Your task to perform on an android device: turn off location Image 0: 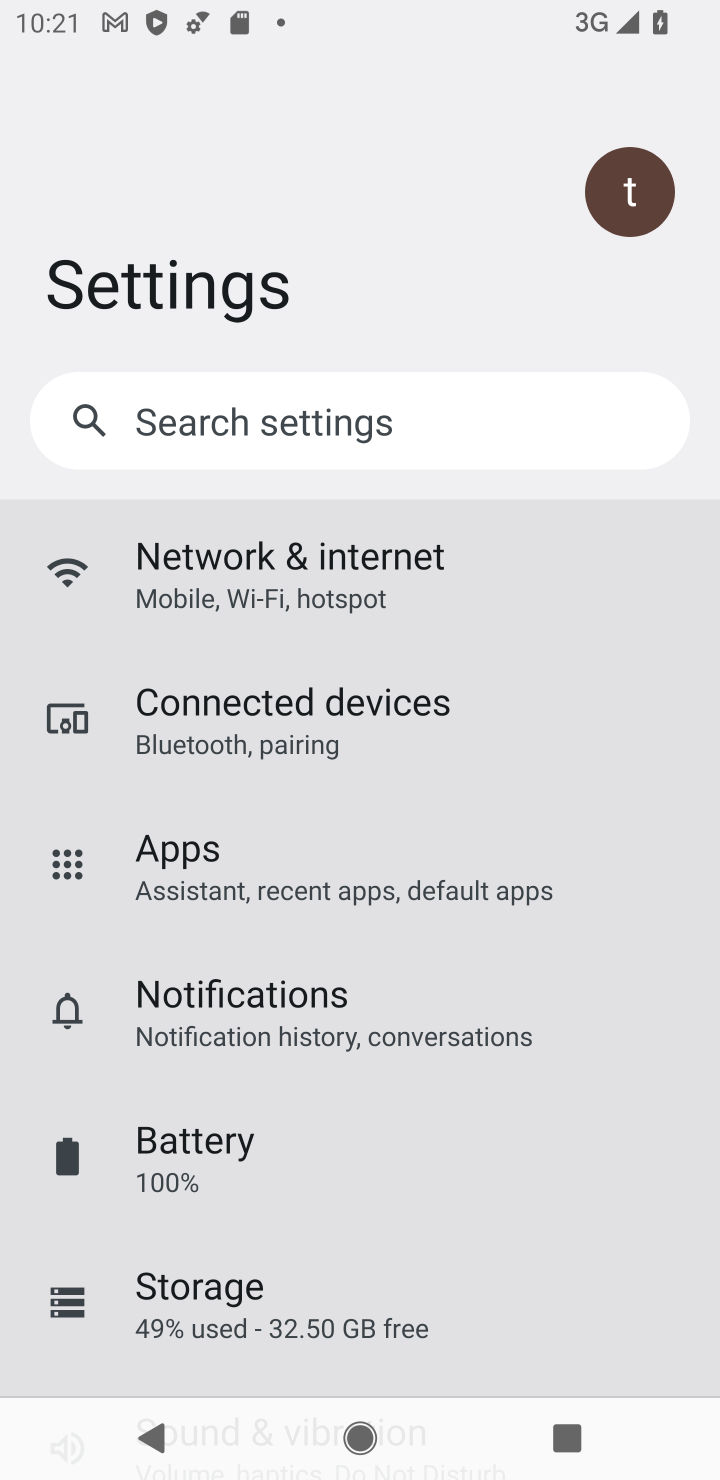
Step 0: drag from (303, 1148) to (307, 563)
Your task to perform on an android device: turn off location Image 1: 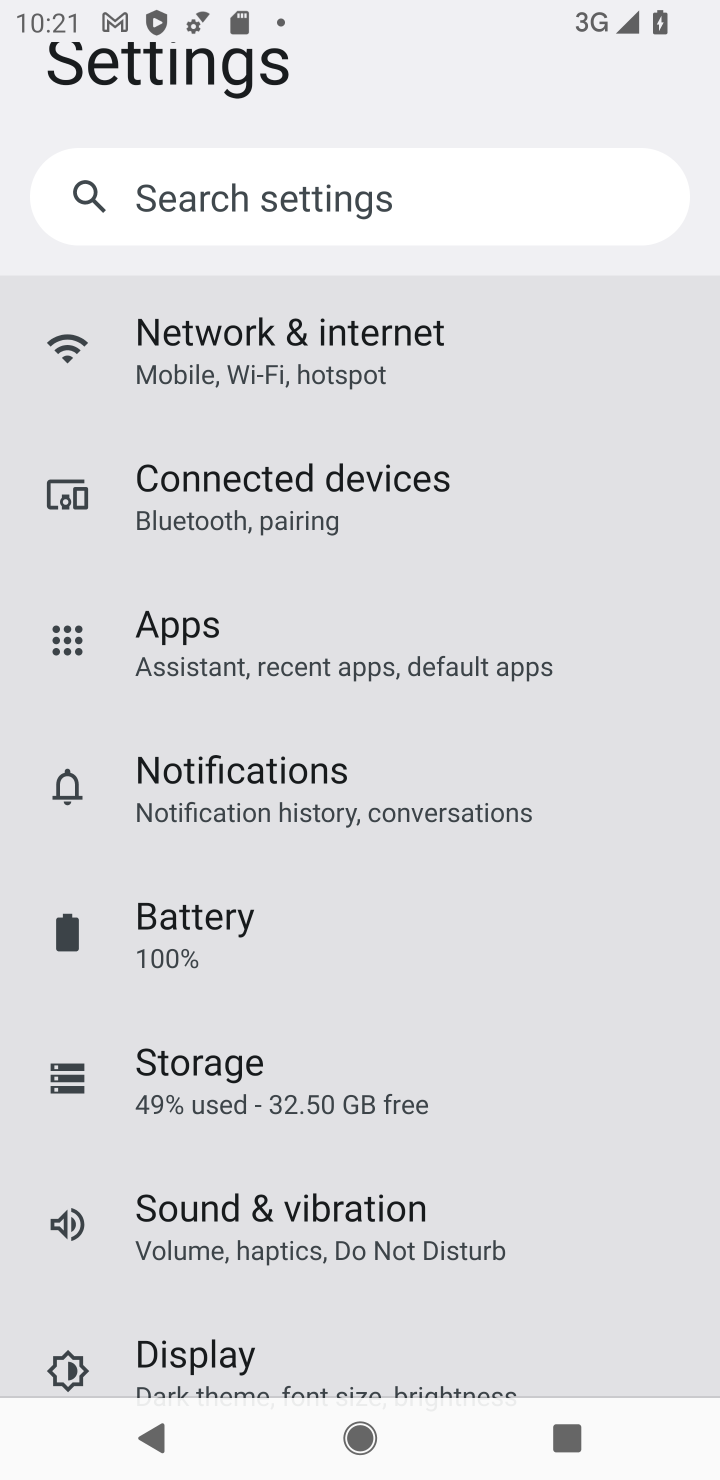
Step 1: drag from (230, 1044) to (227, 802)
Your task to perform on an android device: turn off location Image 2: 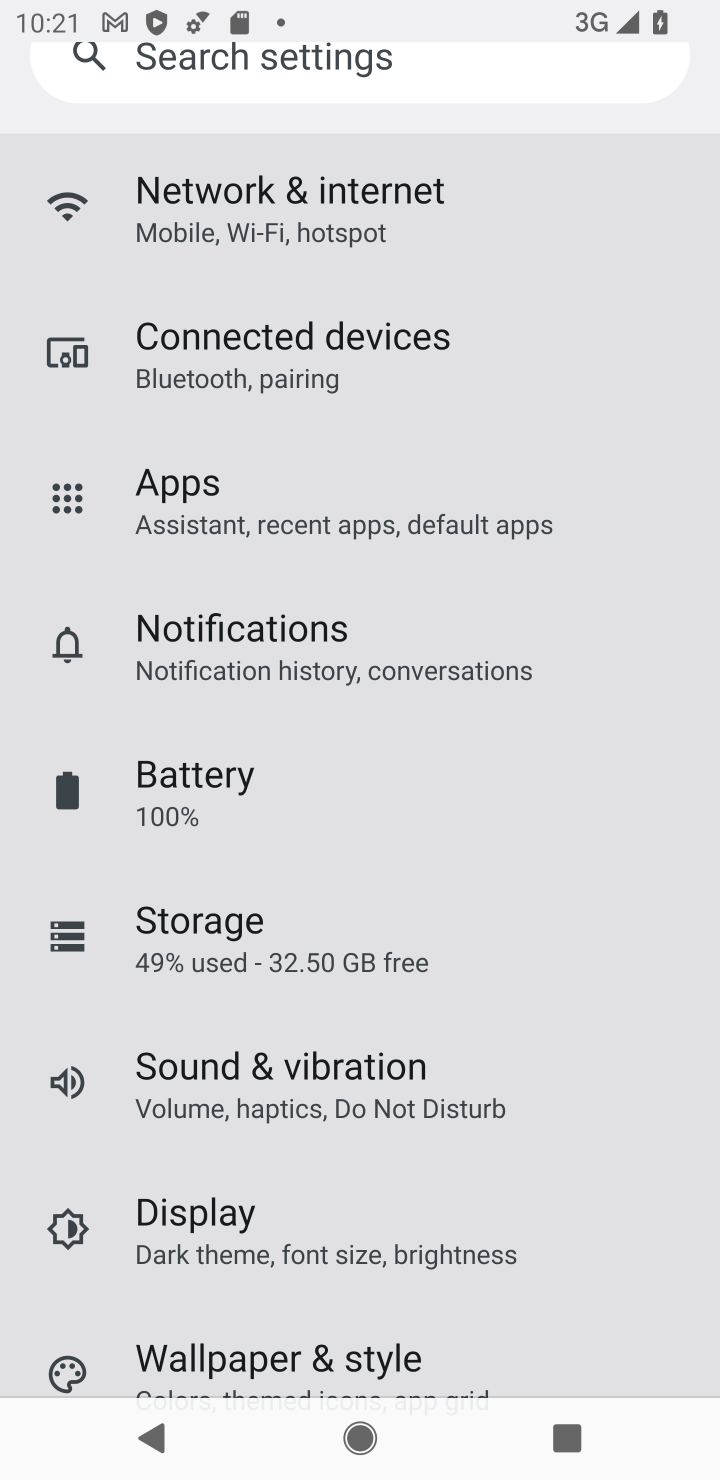
Step 2: drag from (238, 1164) to (276, 799)
Your task to perform on an android device: turn off location Image 3: 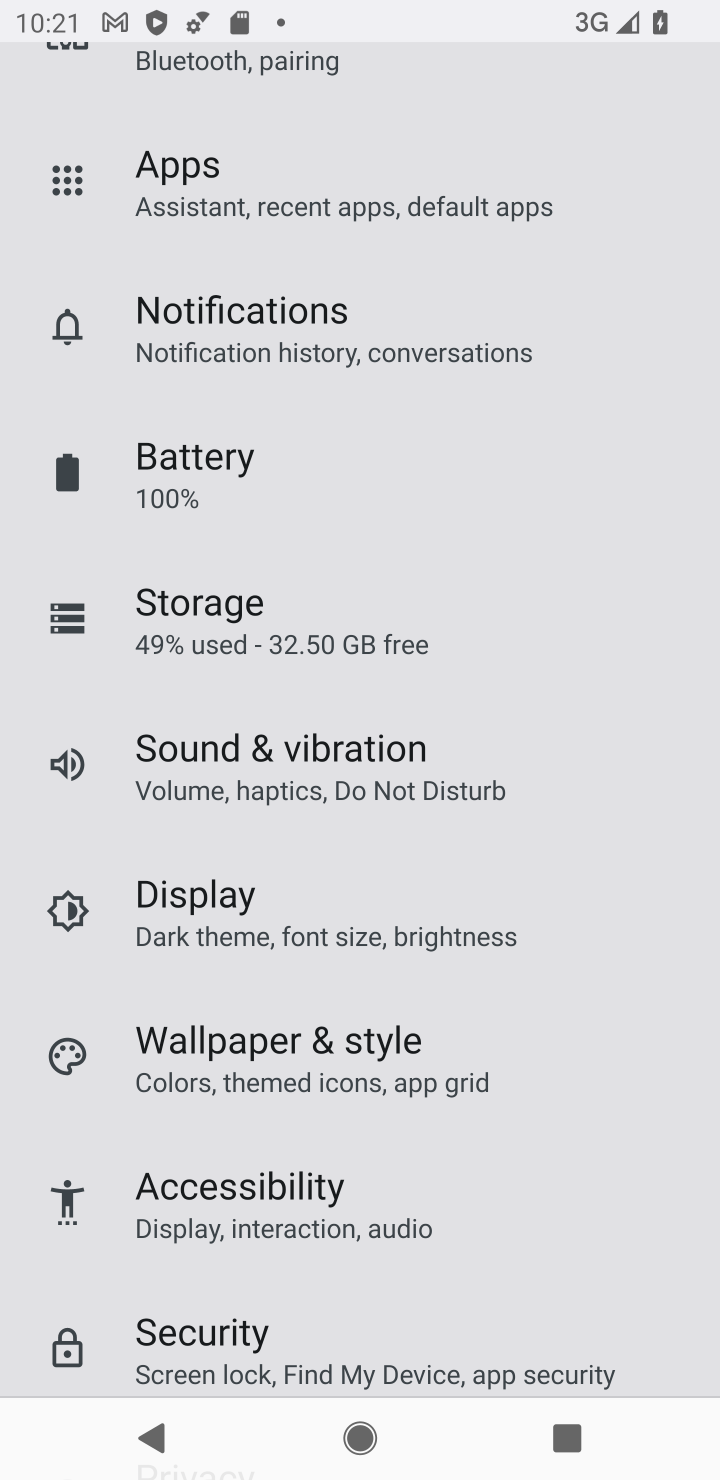
Step 3: drag from (255, 994) to (299, 506)
Your task to perform on an android device: turn off location Image 4: 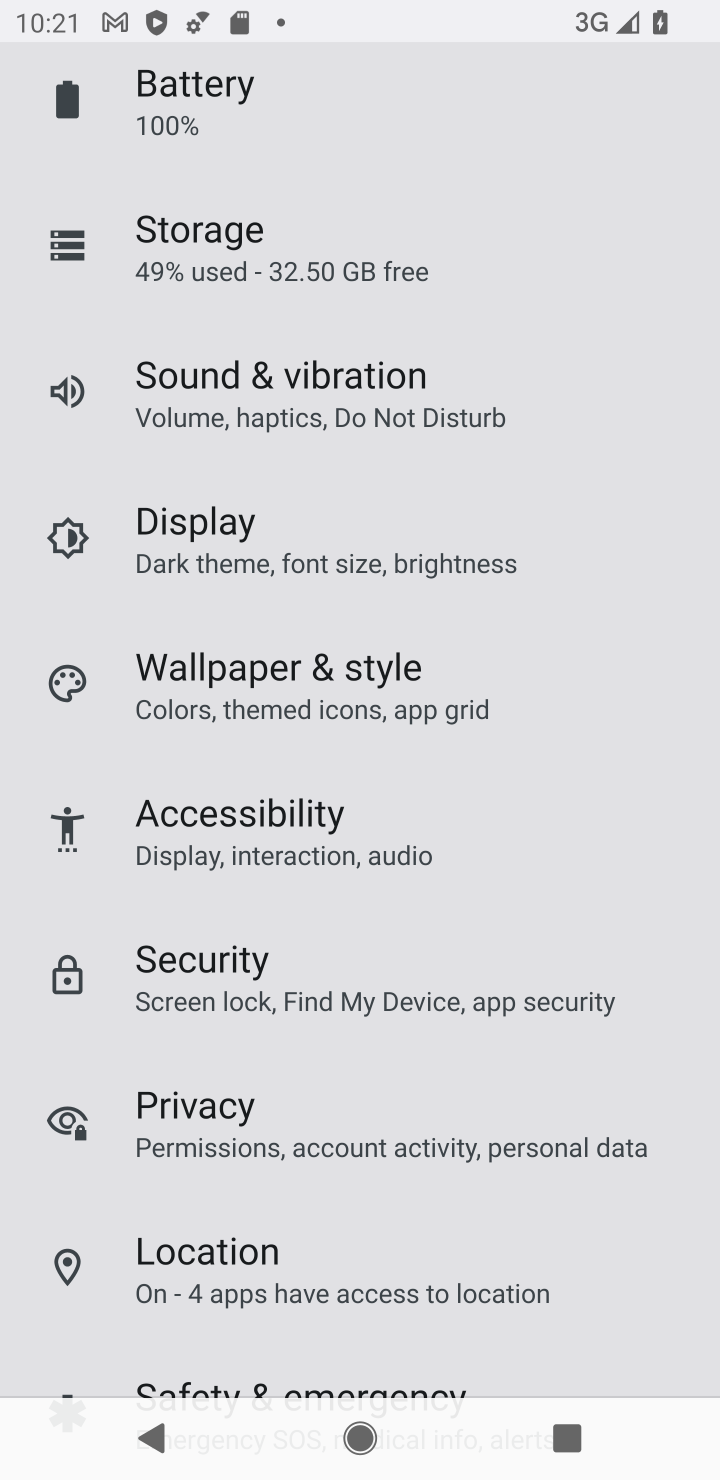
Step 4: drag from (326, 1224) to (319, 584)
Your task to perform on an android device: turn off location Image 5: 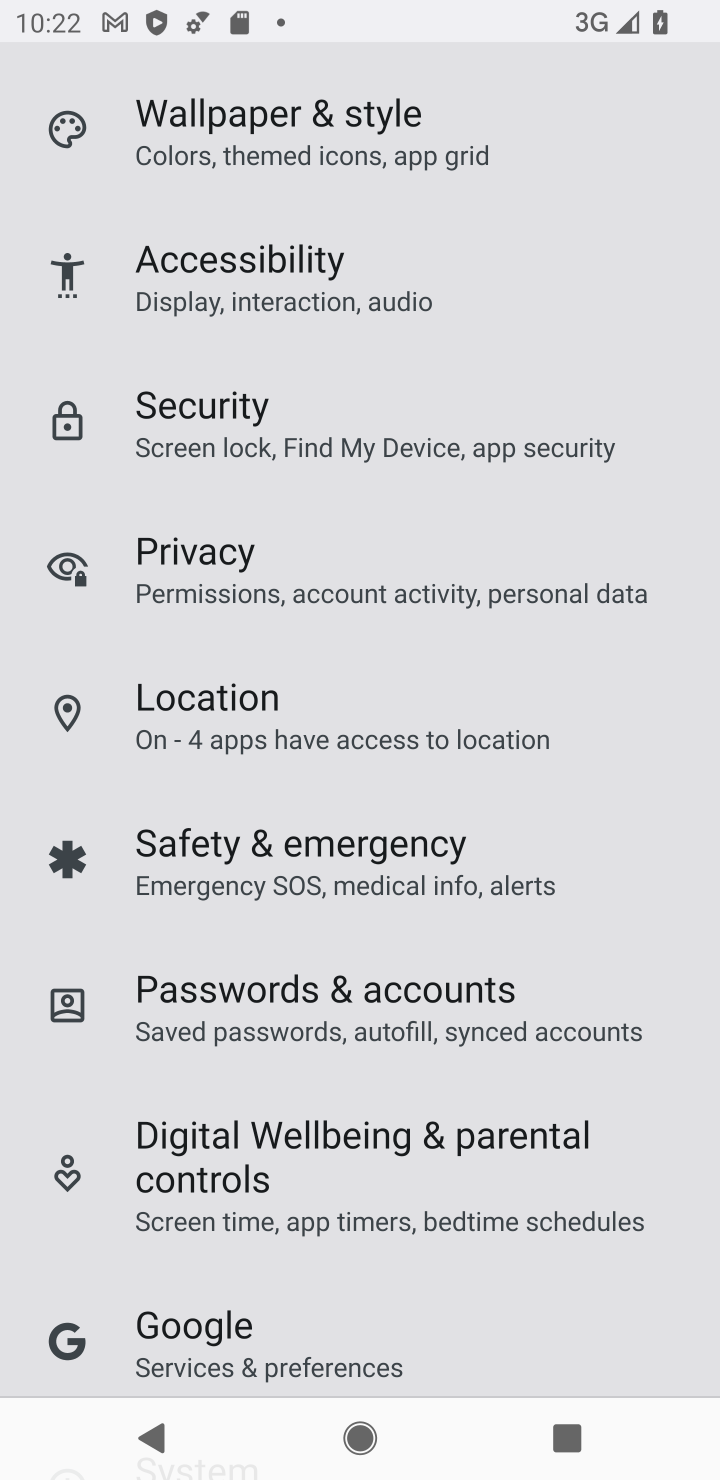
Step 5: click (177, 710)
Your task to perform on an android device: turn off location Image 6: 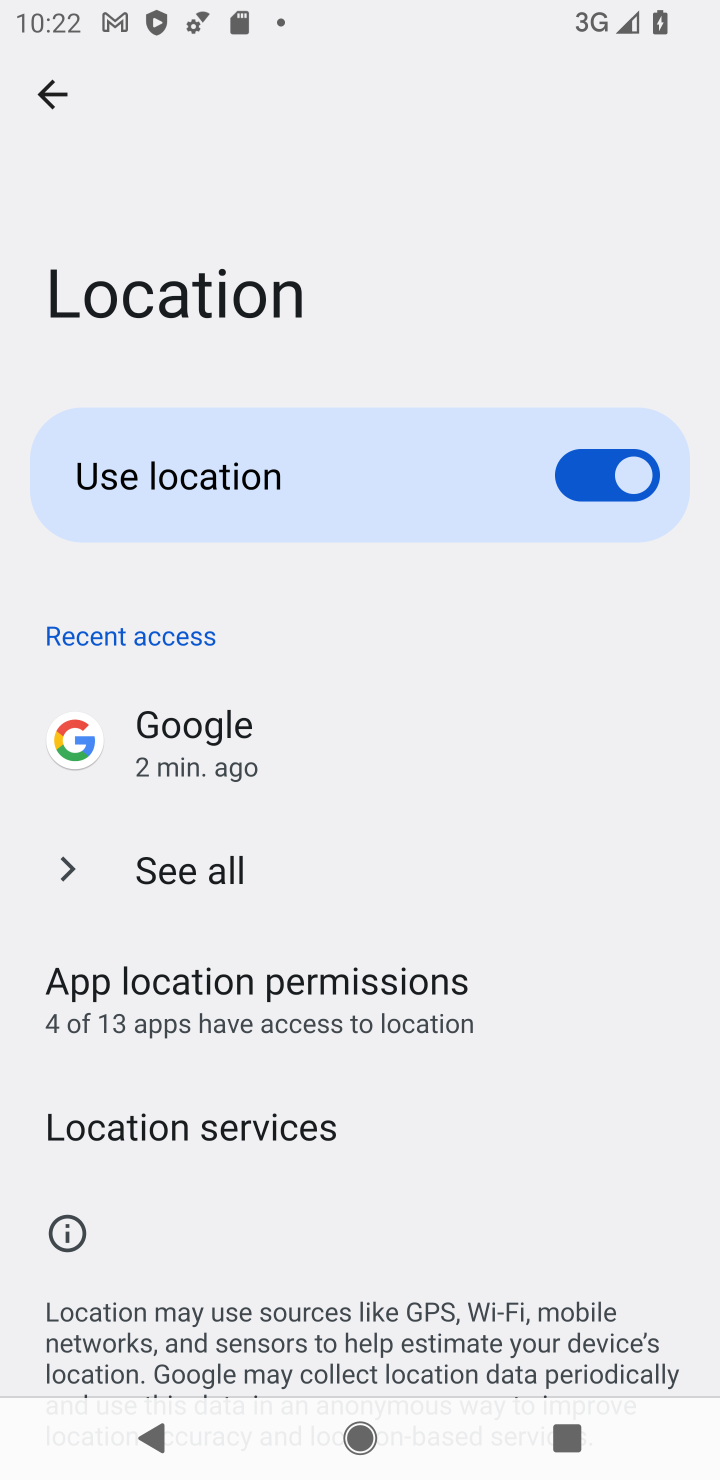
Step 6: click (324, 467)
Your task to perform on an android device: turn off location Image 7: 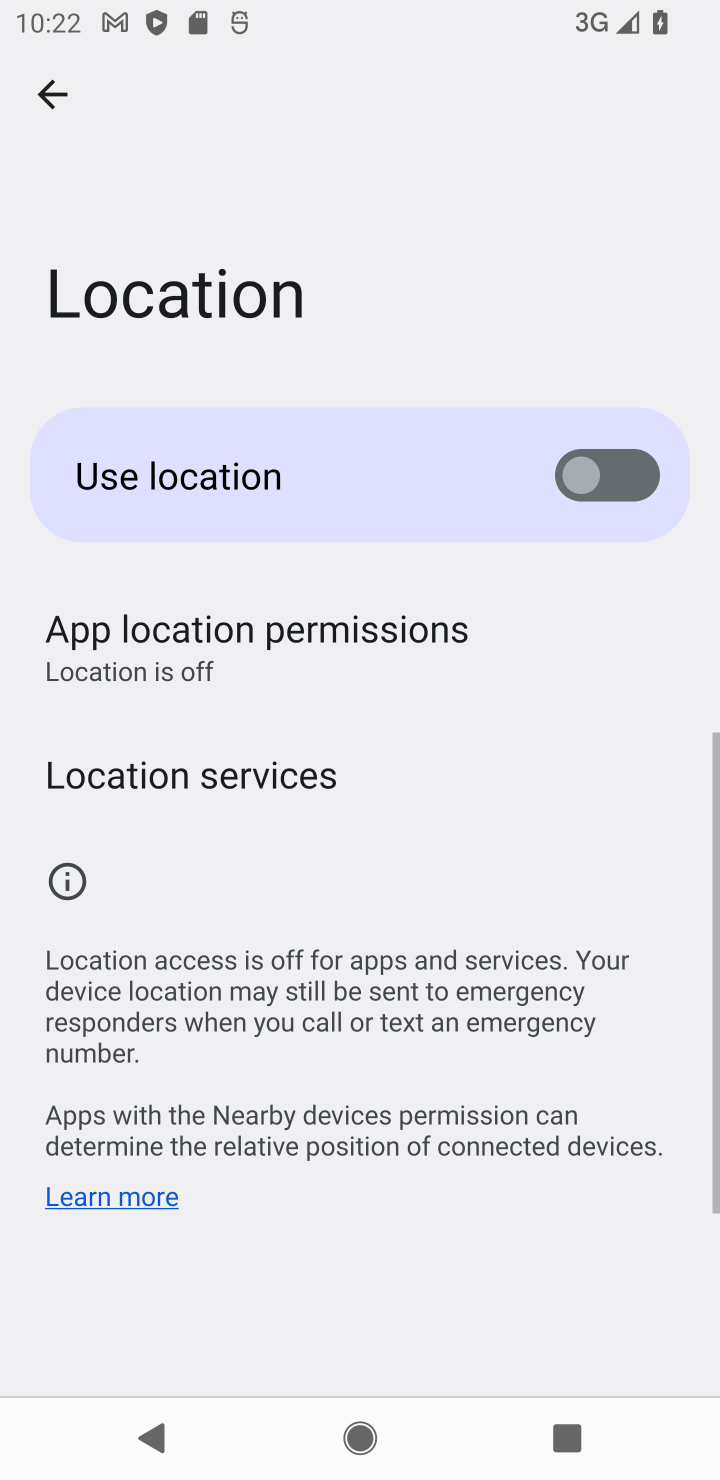
Step 7: task complete